Your task to perform on an android device: What's the news about the US stock market? Image 0: 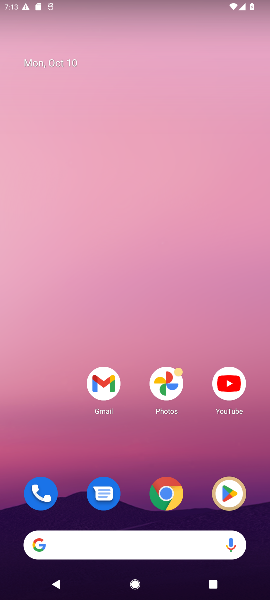
Step 0: drag from (132, 458) to (120, 187)
Your task to perform on an android device: What's the news about the US stock market? Image 1: 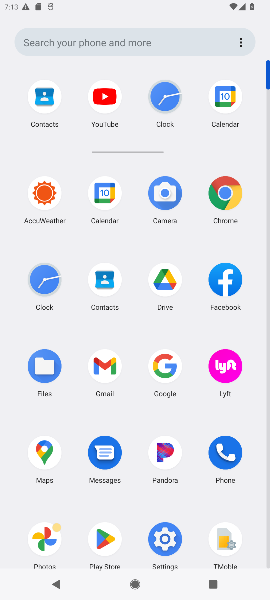
Step 1: click (226, 195)
Your task to perform on an android device: What's the news about the US stock market? Image 2: 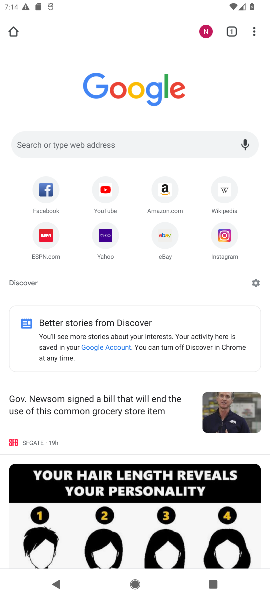
Step 2: type "What's the news about the US stock market?"
Your task to perform on an android device: What's the news about the US stock market? Image 3: 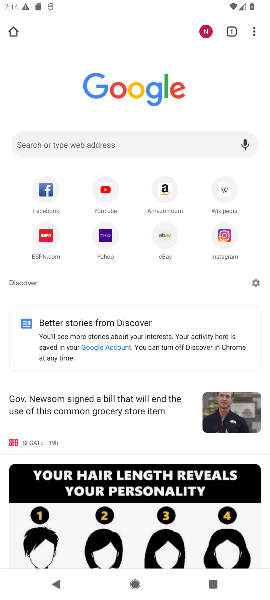
Step 3: click (109, 149)
Your task to perform on an android device: What's the news about the US stock market? Image 4: 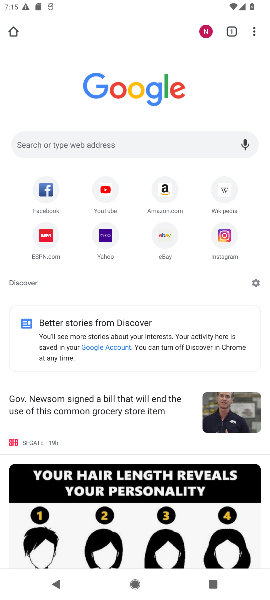
Step 4: click (104, 142)
Your task to perform on an android device: What's the news about the US stock market? Image 5: 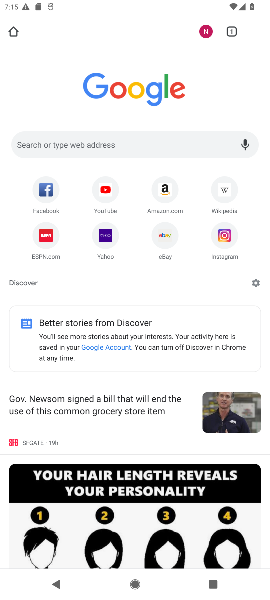
Step 5: click (104, 142)
Your task to perform on an android device: What's the news about the US stock market? Image 6: 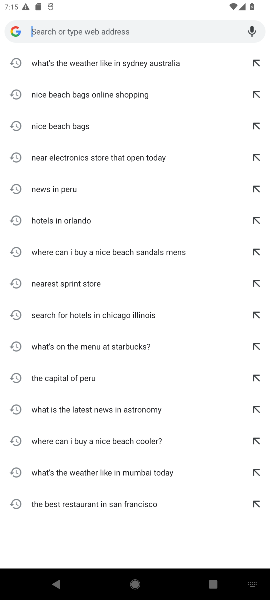
Step 6: click (104, 142)
Your task to perform on an android device: What's the news about the US stock market? Image 7: 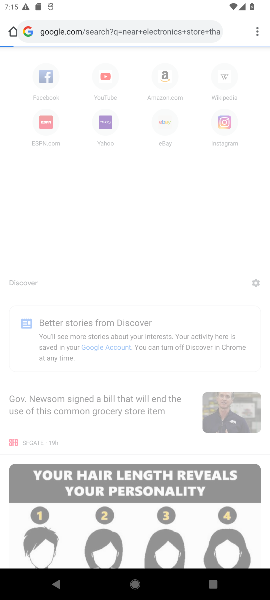
Step 7: click (124, 140)
Your task to perform on an android device: What's the news about the US stock market? Image 8: 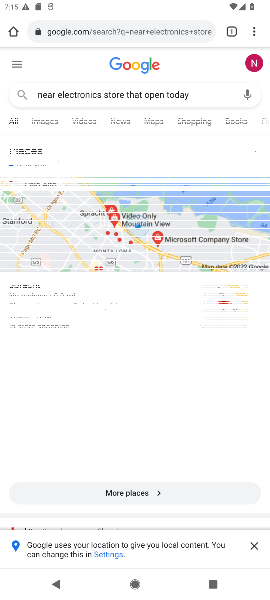
Step 8: click (104, 29)
Your task to perform on an android device: What's the news about the US stock market? Image 9: 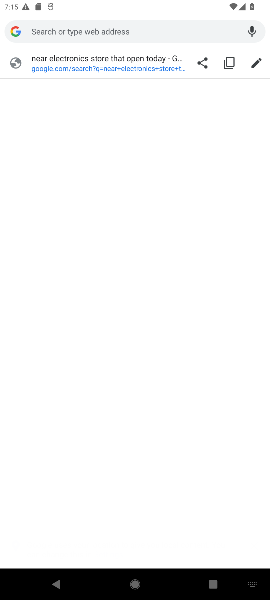
Step 9: type "What's the news about the US stock market?"
Your task to perform on an android device: What's the news about the US stock market? Image 10: 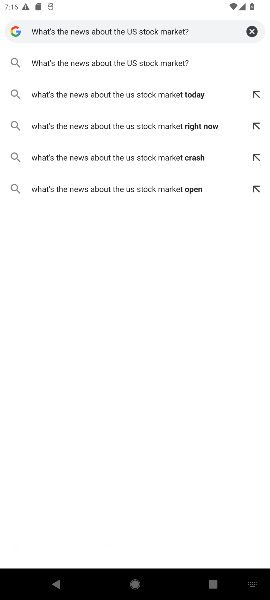
Step 10: click (171, 57)
Your task to perform on an android device: What's the news about the US stock market? Image 11: 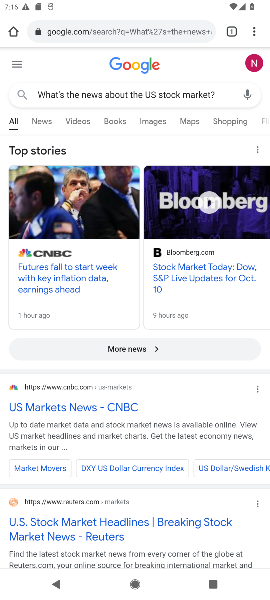
Step 11: task complete